Your task to perform on an android device: Search for sushi restaurants on Maps Image 0: 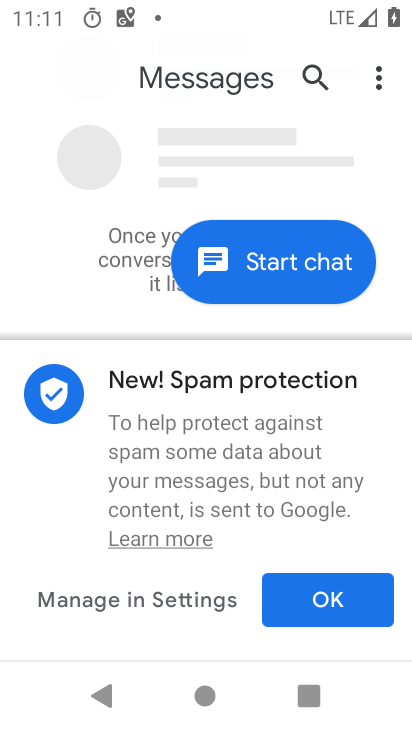
Step 0: press home button
Your task to perform on an android device: Search for sushi restaurants on Maps Image 1: 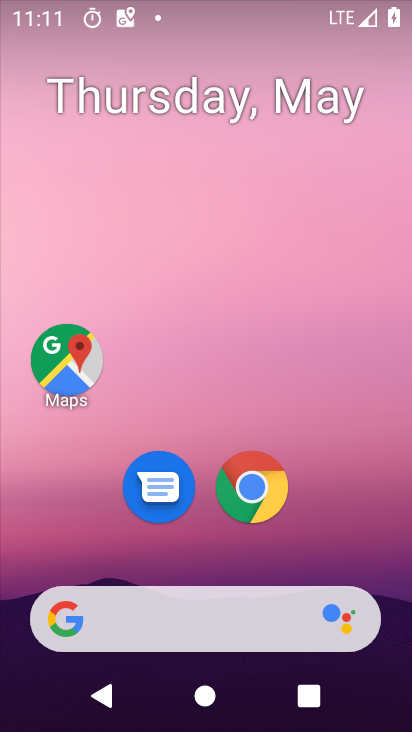
Step 1: drag from (166, 613) to (209, 61)
Your task to perform on an android device: Search for sushi restaurants on Maps Image 2: 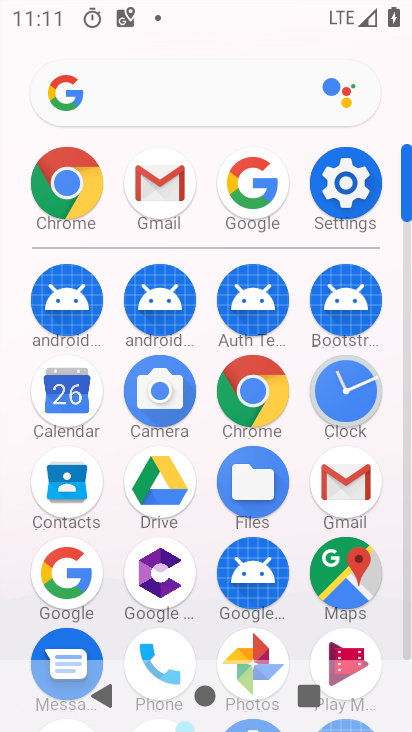
Step 2: click (348, 579)
Your task to perform on an android device: Search for sushi restaurants on Maps Image 3: 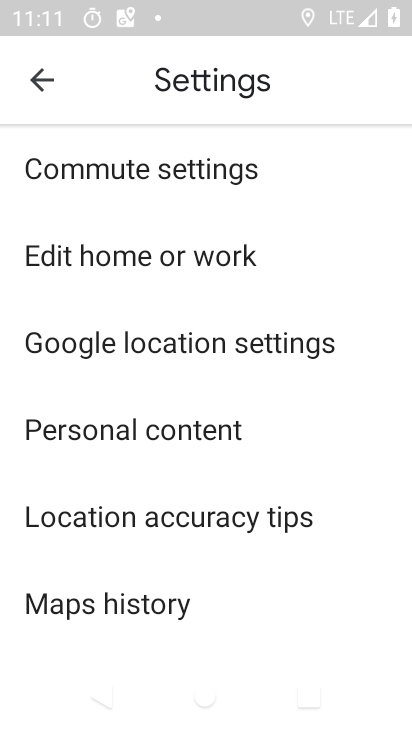
Step 3: click (38, 91)
Your task to perform on an android device: Search for sushi restaurants on Maps Image 4: 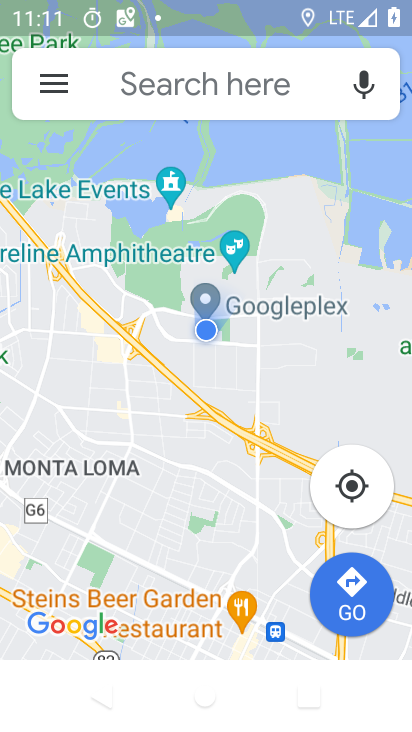
Step 4: click (159, 83)
Your task to perform on an android device: Search for sushi restaurants on Maps Image 5: 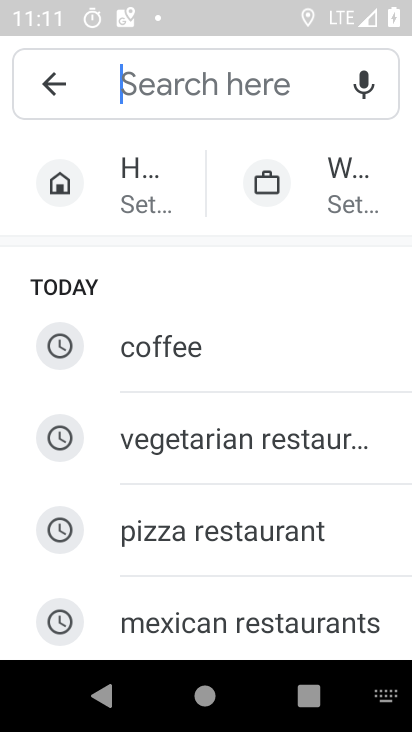
Step 5: drag from (167, 478) to (204, 87)
Your task to perform on an android device: Search for sushi restaurants on Maps Image 6: 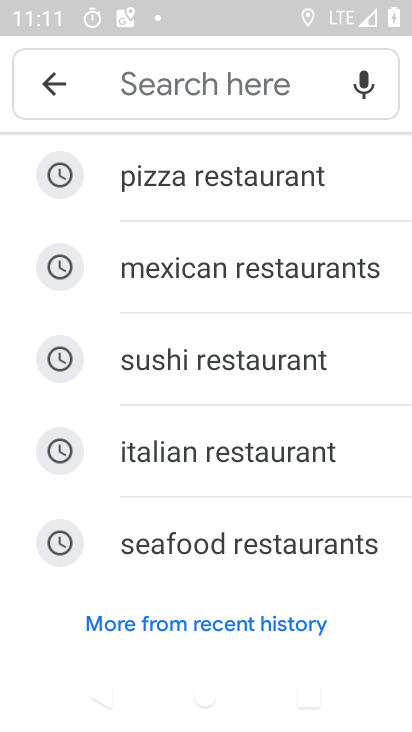
Step 6: click (241, 368)
Your task to perform on an android device: Search for sushi restaurants on Maps Image 7: 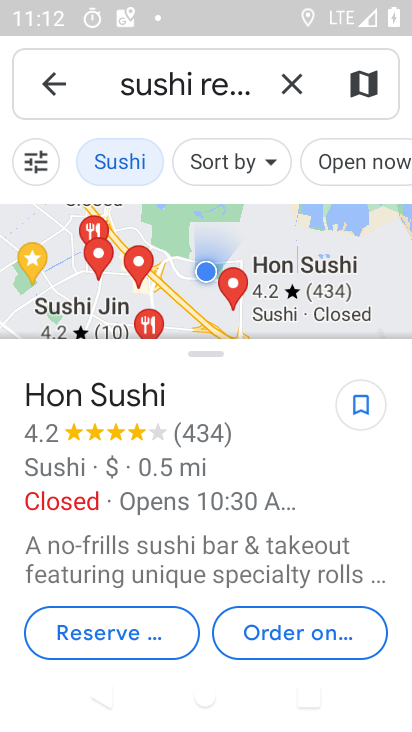
Step 7: task complete